Your task to perform on an android device: turn on javascript in the chrome app Image 0: 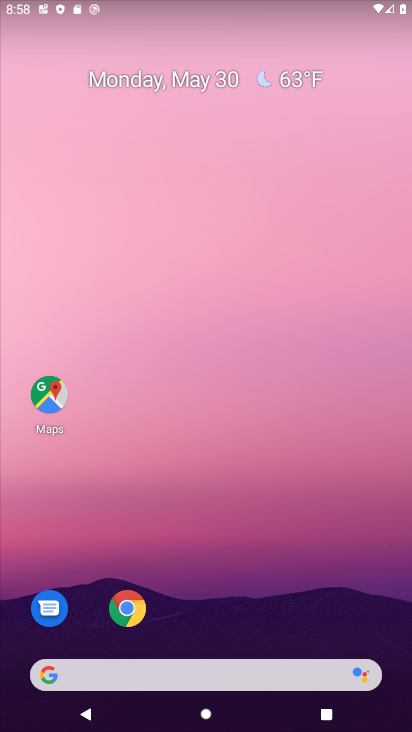
Step 0: click (123, 611)
Your task to perform on an android device: turn on javascript in the chrome app Image 1: 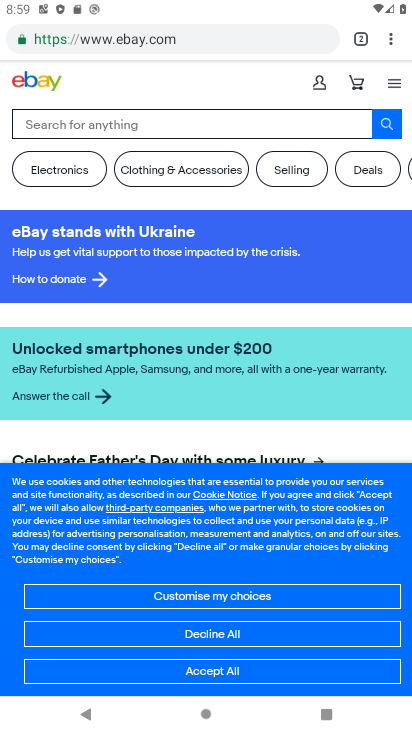
Step 1: click (388, 33)
Your task to perform on an android device: turn on javascript in the chrome app Image 2: 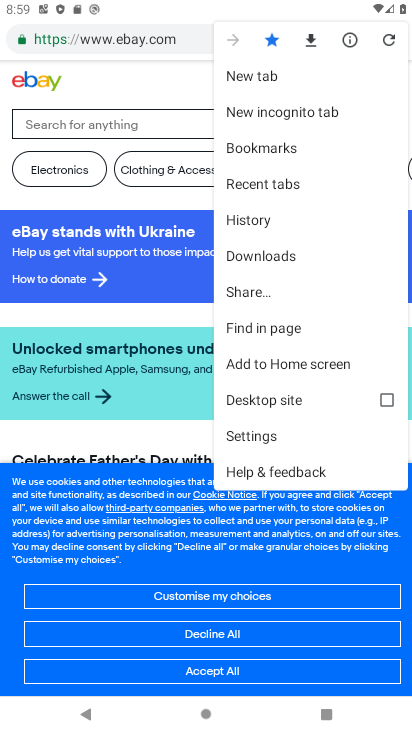
Step 2: click (253, 439)
Your task to perform on an android device: turn on javascript in the chrome app Image 3: 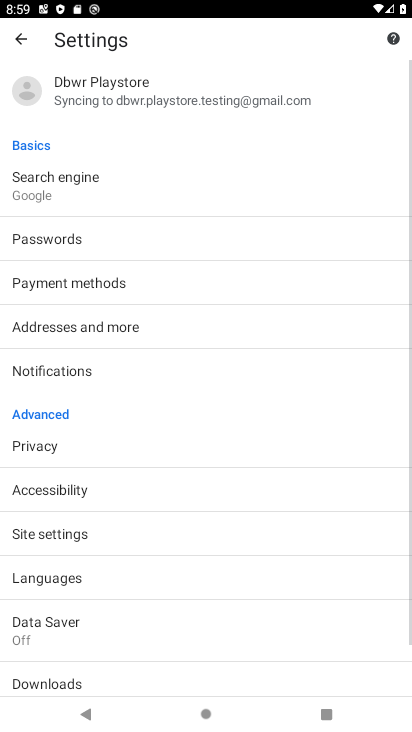
Step 3: click (114, 536)
Your task to perform on an android device: turn on javascript in the chrome app Image 4: 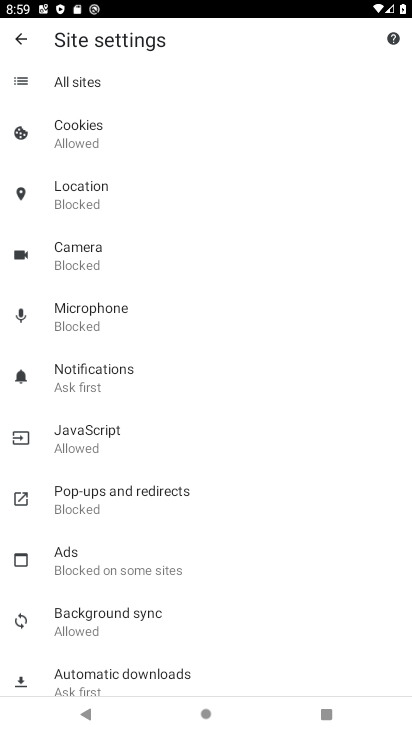
Step 4: click (101, 442)
Your task to perform on an android device: turn on javascript in the chrome app Image 5: 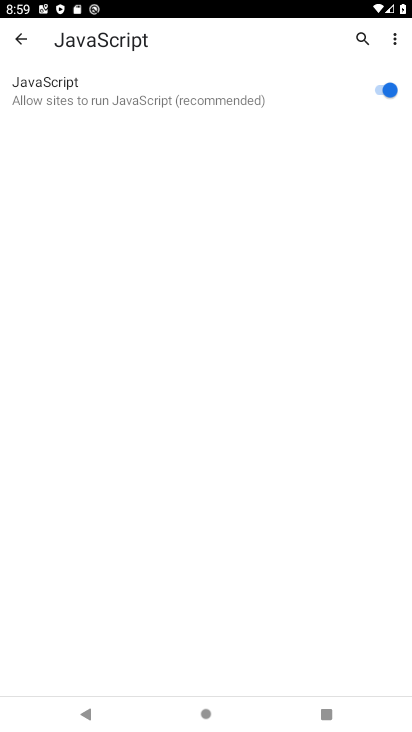
Step 5: task complete